Your task to perform on an android device: Open calendar and show me the first week of next month Image 0: 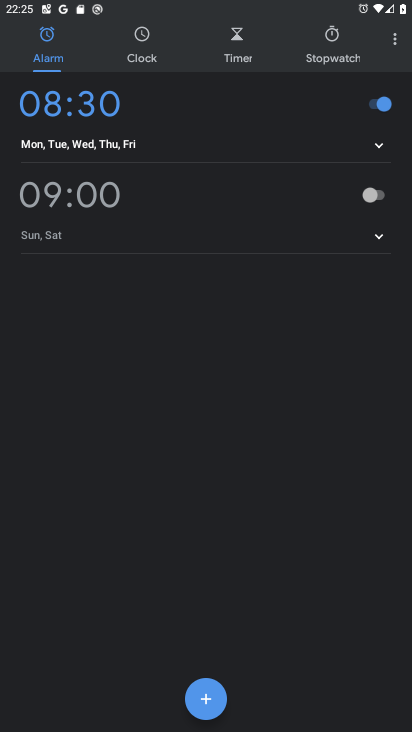
Step 0: press home button
Your task to perform on an android device: Open calendar and show me the first week of next month Image 1: 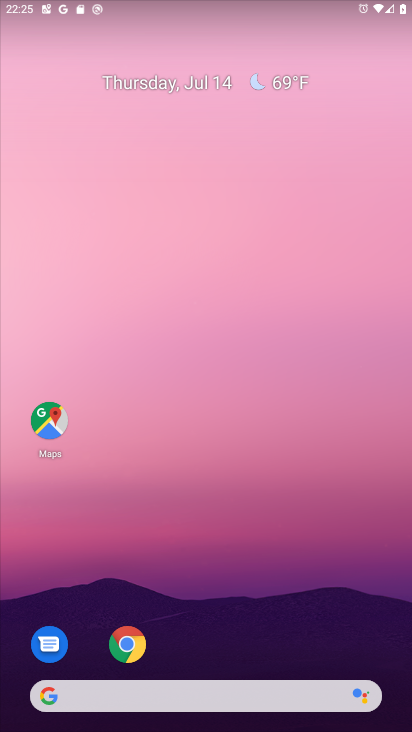
Step 1: click (175, 84)
Your task to perform on an android device: Open calendar and show me the first week of next month Image 2: 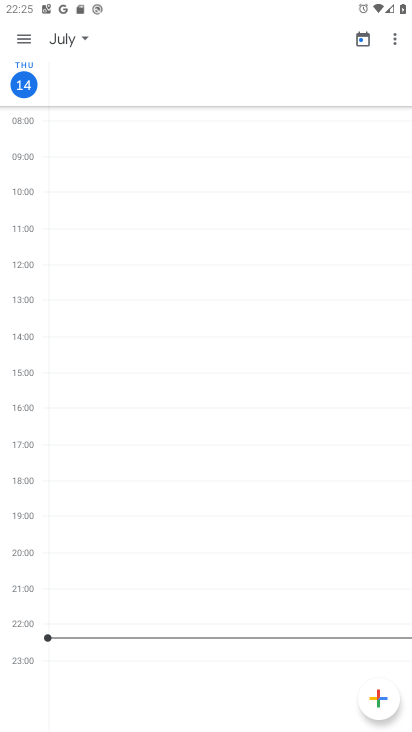
Step 2: click (76, 50)
Your task to perform on an android device: Open calendar and show me the first week of next month Image 3: 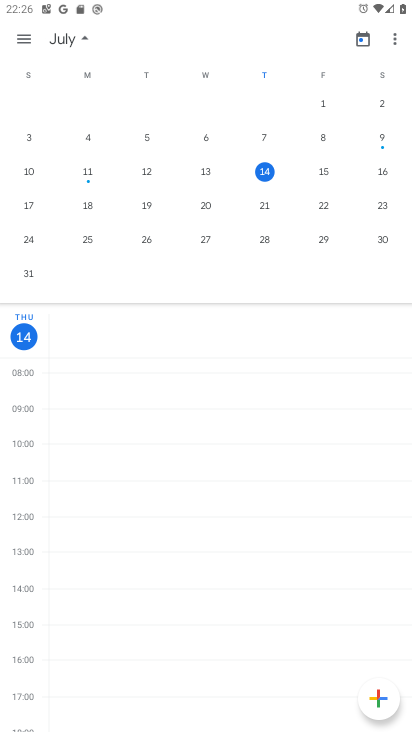
Step 3: task complete